Your task to perform on an android device: Show me popular games on the Play Store Image 0: 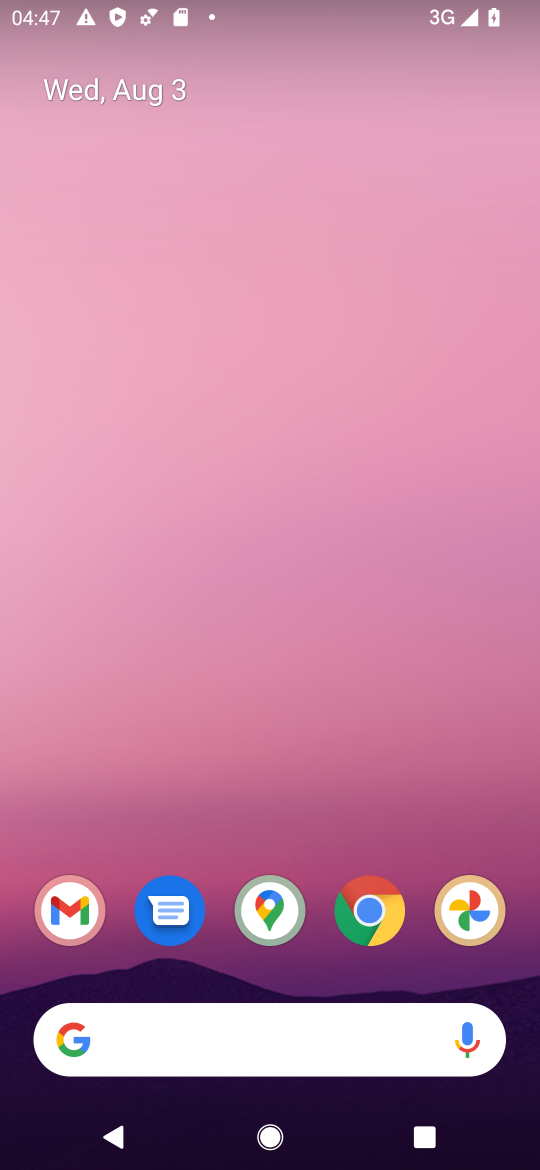
Step 0: press home button
Your task to perform on an android device: Show me popular games on the Play Store Image 1: 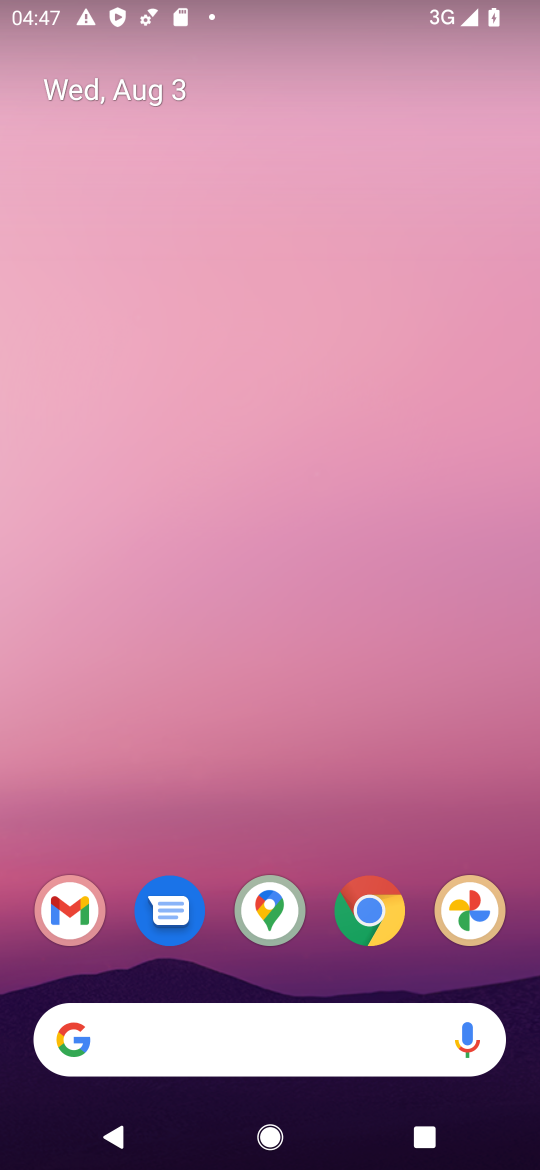
Step 1: drag from (294, 813) to (328, 23)
Your task to perform on an android device: Show me popular games on the Play Store Image 2: 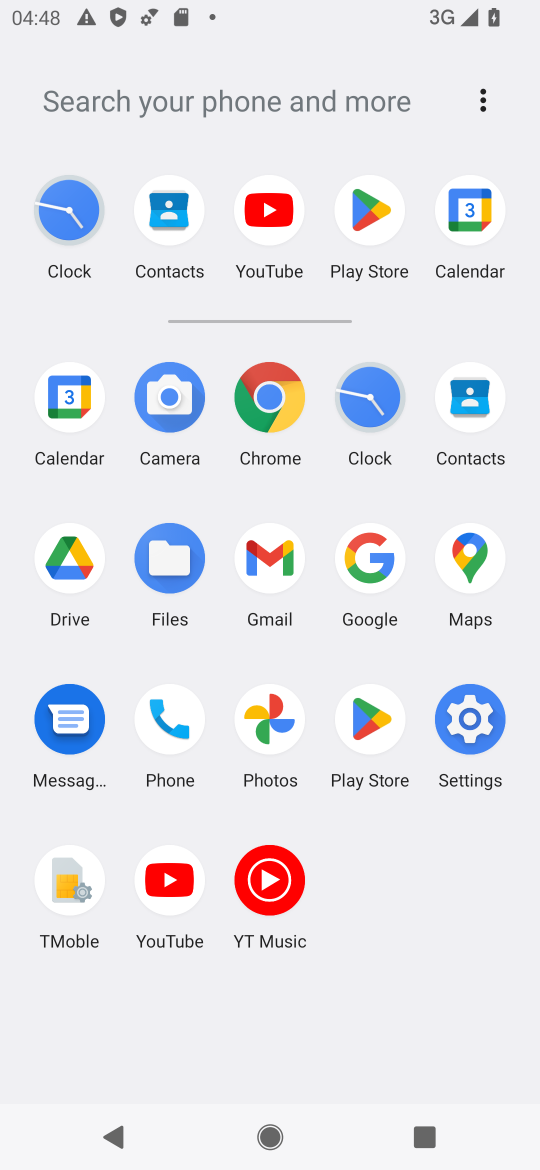
Step 2: click (369, 715)
Your task to perform on an android device: Show me popular games on the Play Store Image 3: 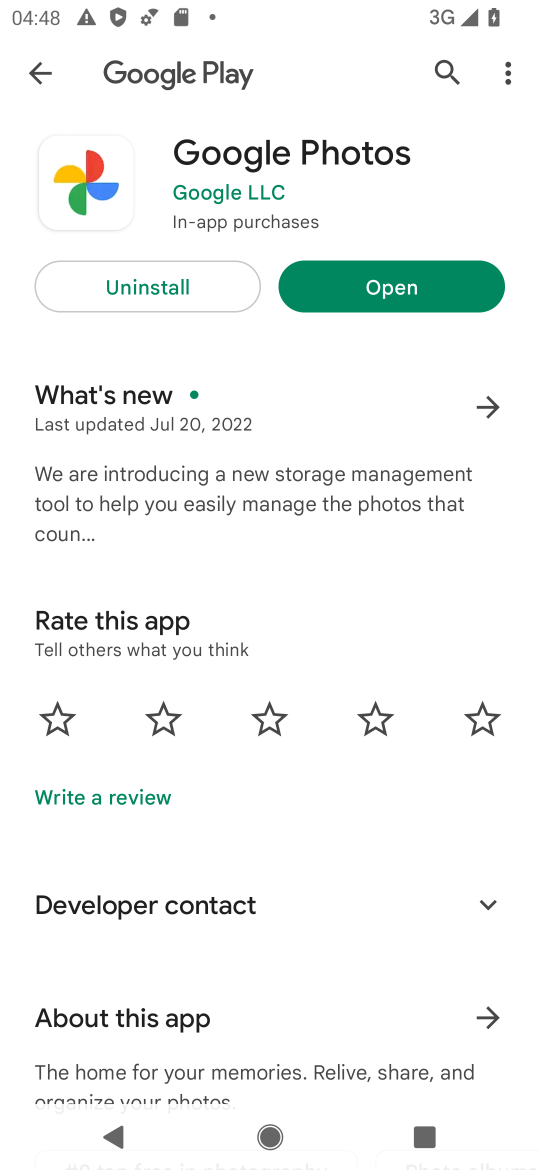
Step 3: click (37, 66)
Your task to perform on an android device: Show me popular games on the Play Store Image 4: 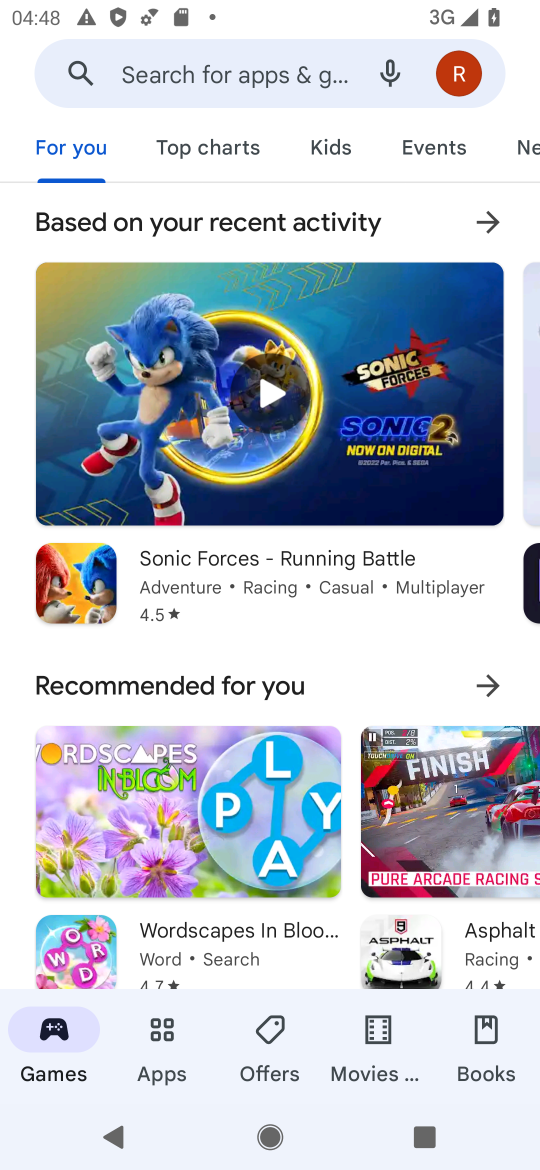
Step 4: task complete